Your task to perform on an android device: toggle pop-ups in chrome Image 0: 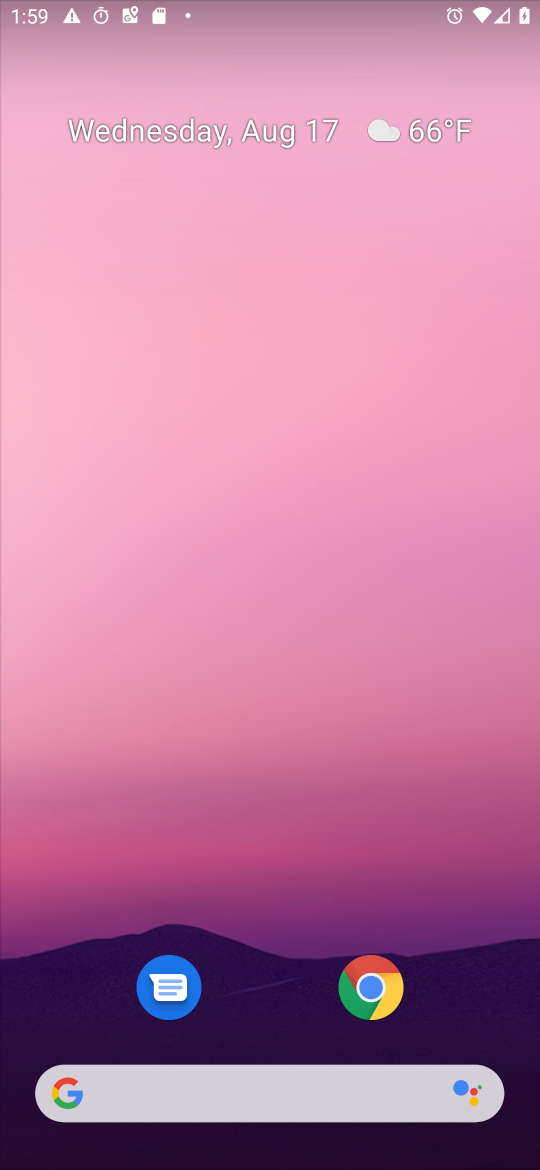
Step 0: click (376, 981)
Your task to perform on an android device: toggle pop-ups in chrome Image 1: 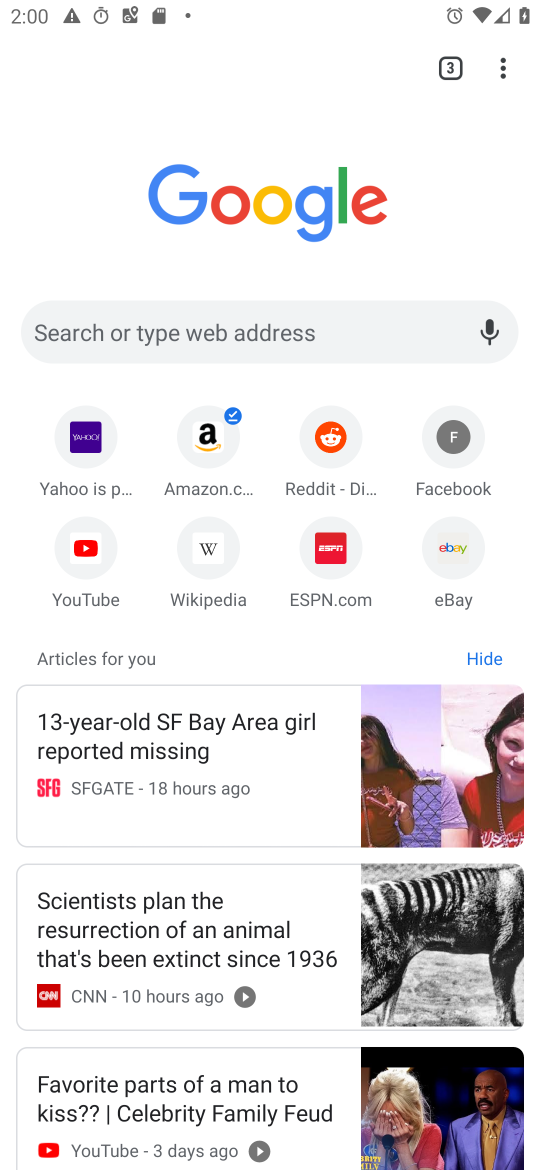
Step 1: click (498, 76)
Your task to perform on an android device: toggle pop-ups in chrome Image 2: 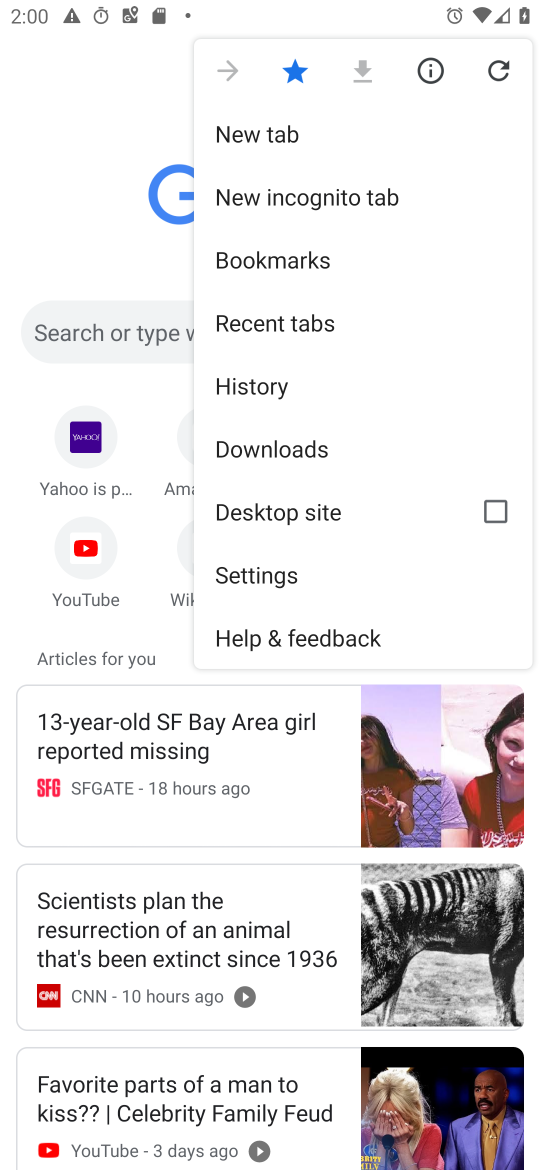
Step 2: click (303, 581)
Your task to perform on an android device: toggle pop-ups in chrome Image 3: 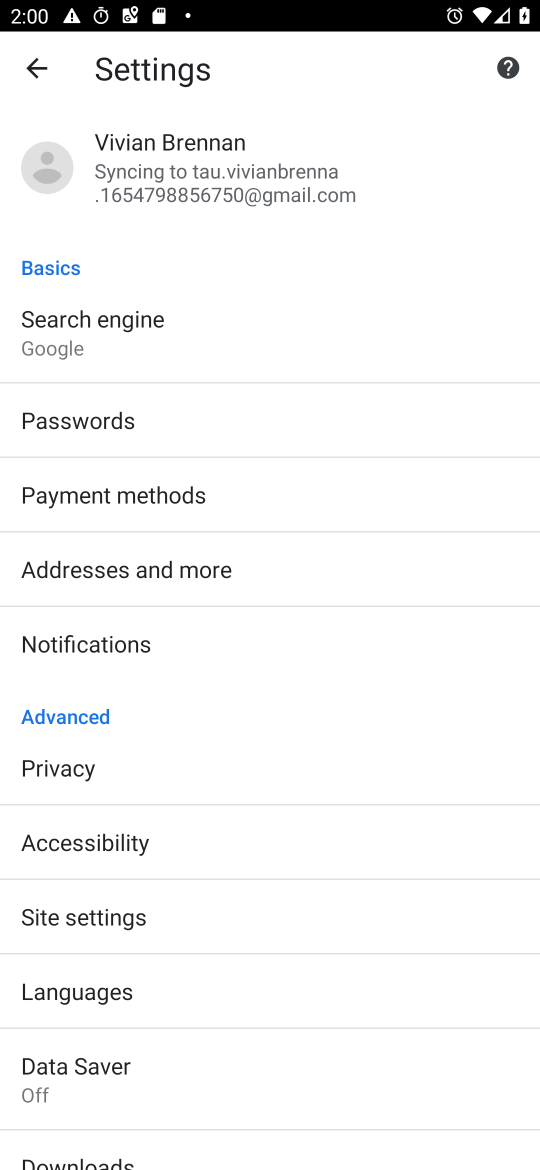
Step 3: click (85, 910)
Your task to perform on an android device: toggle pop-ups in chrome Image 4: 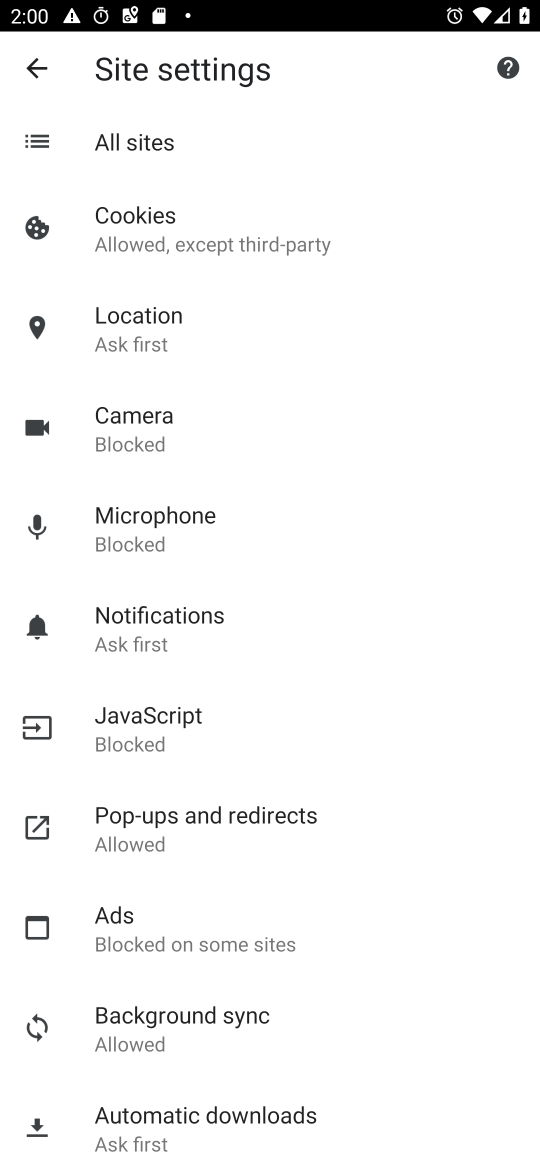
Step 4: drag from (429, 1046) to (463, 711)
Your task to perform on an android device: toggle pop-ups in chrome Image 5: 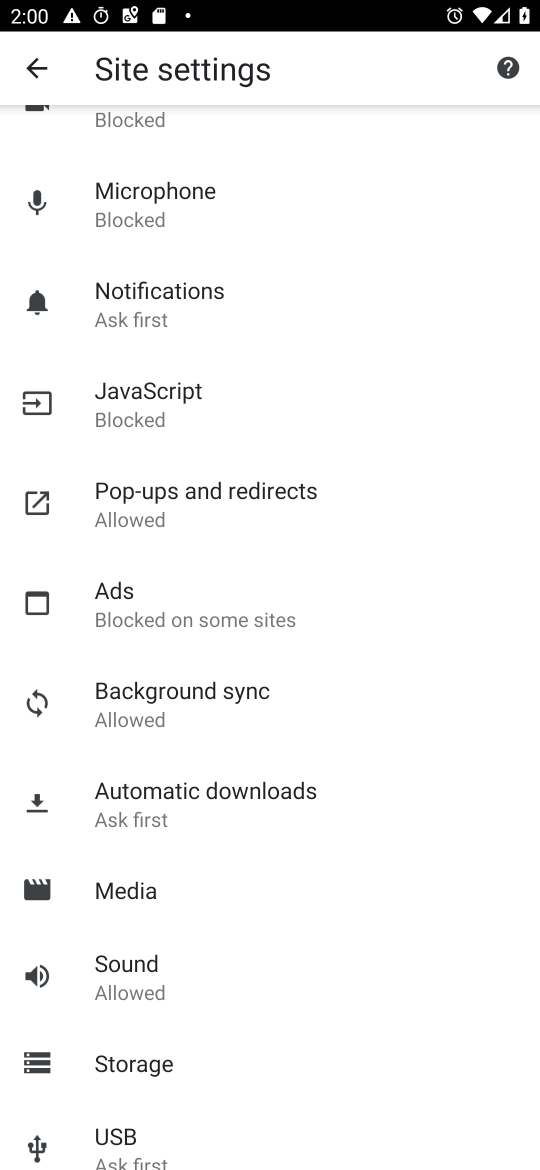
Step 5: drag from (395, 275) to (365, 753)
Your task to perform on an android device: toggle pop-ups in chrome Image 6: 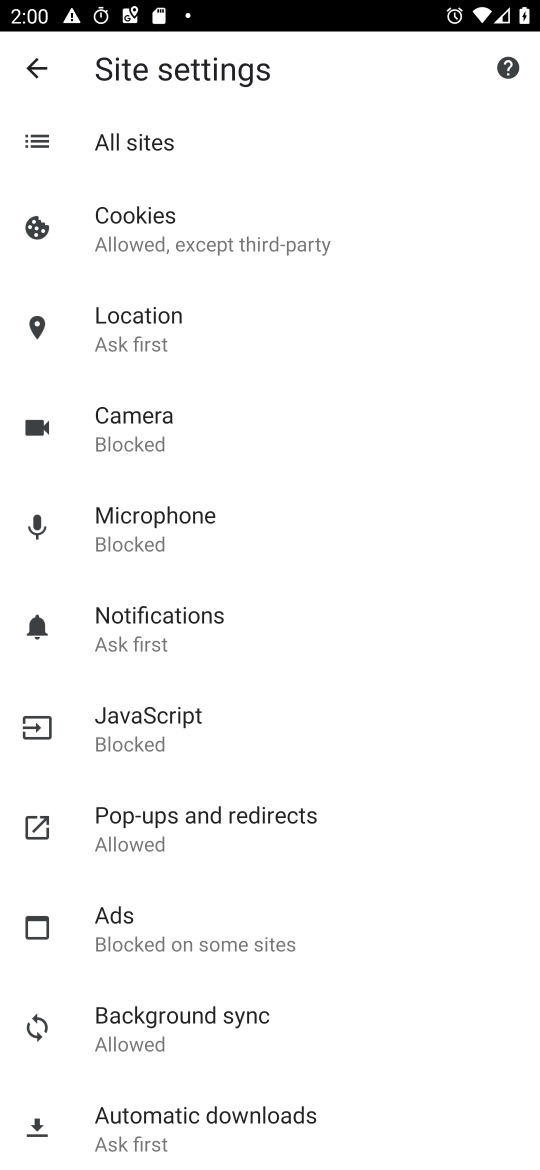
Step 6: click (225, 857)
Your task to perform on an android device: toggle pop-ups in chrome Image 7: 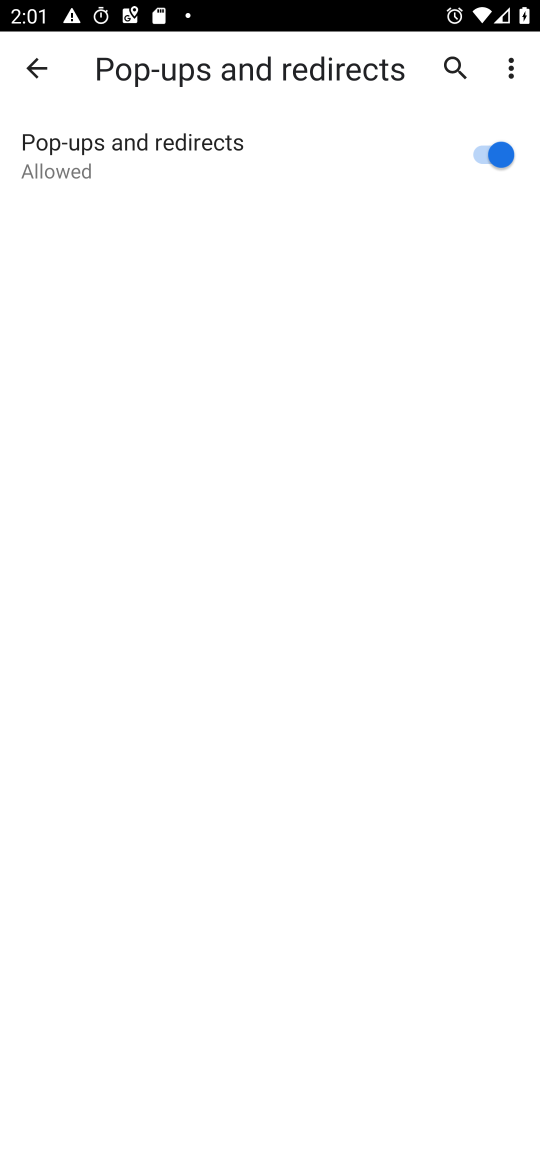
Step 7: task complete